Your task to perform on an android device: Open the Play Movies app and select the watchlist tab. Image 0: 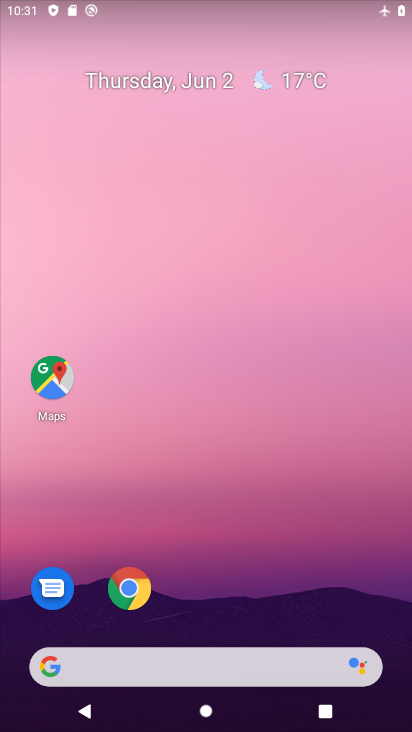
Step 0: drag from (221, 566) to (264, 0)
Your task to perform on an android device: Open the Play Movies app and select the watchlist tab. Image 1: 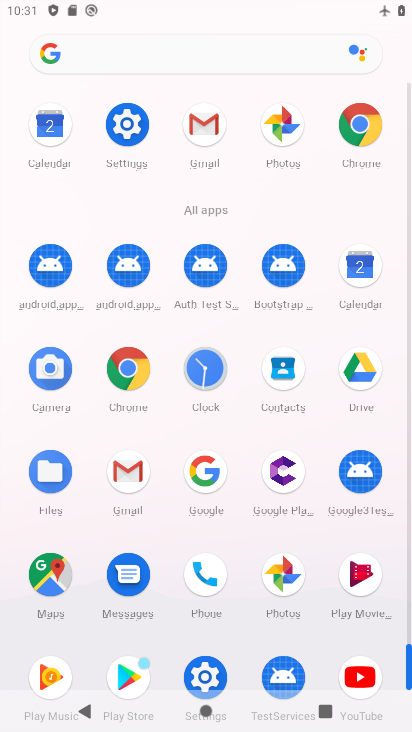
Step 1: drag from (233, 578) to (242, 305)
Your task to perform on an android device: Open the Play Movies app and select the watchlist tab. Image 2: 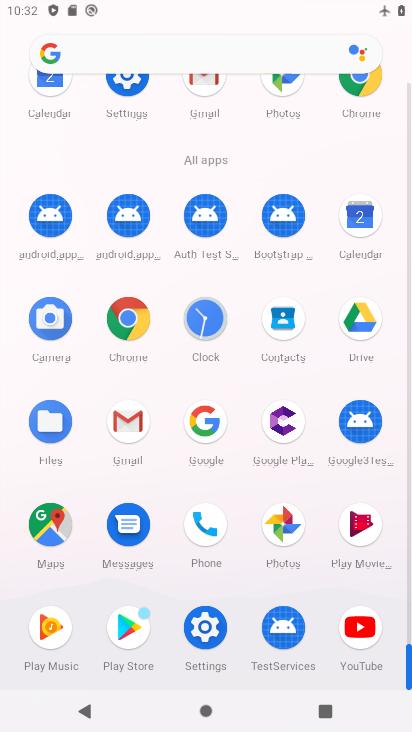
Step 2: click (372, 544)
Your task to perform on an android device: Open the Play Movies app and select the watchlist tab. Image 3: 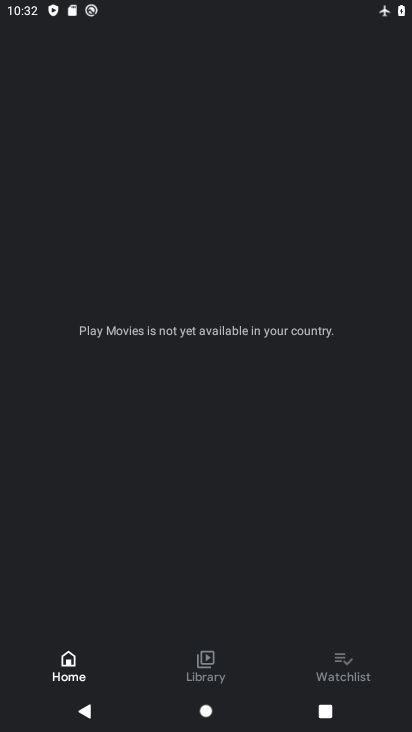
Step 3: click (335, 650)
Your task to perform on an android device: Open the Play Movies app and select the watchlist tab. Image 4: 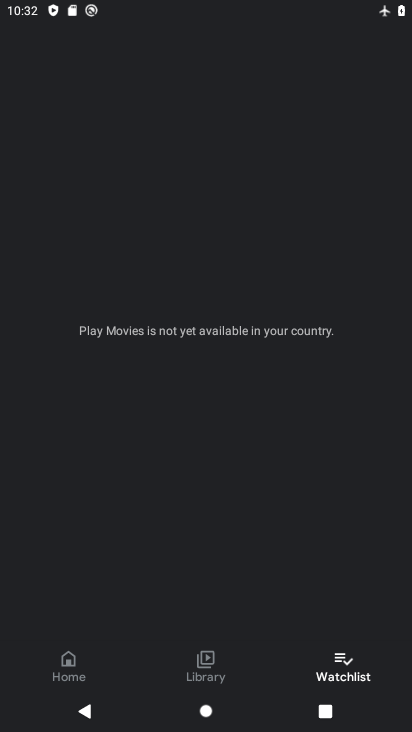
Step 4: task complete